Your task to perform on an android device: empty trash in google photos Image 0: 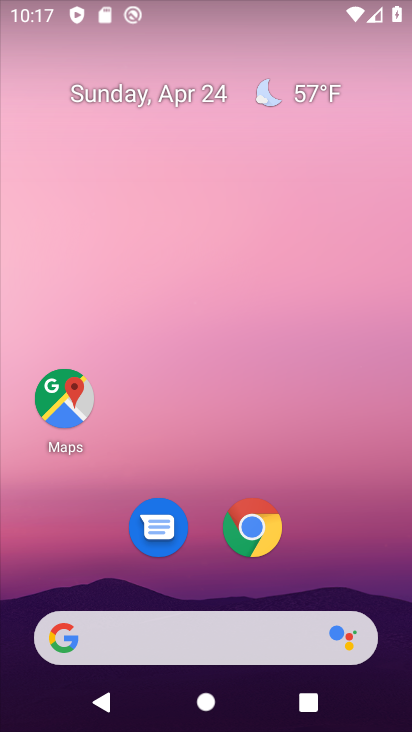
Step 0: click (199, 33)
Your task to perform on an android device: empty trash in google photos Image 1: 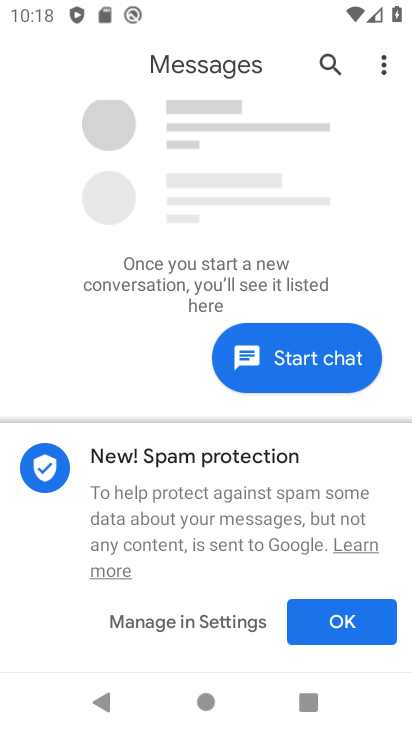
Step 1: press home button
Your task to perform on an android device: empty trash in google photos Image 2: 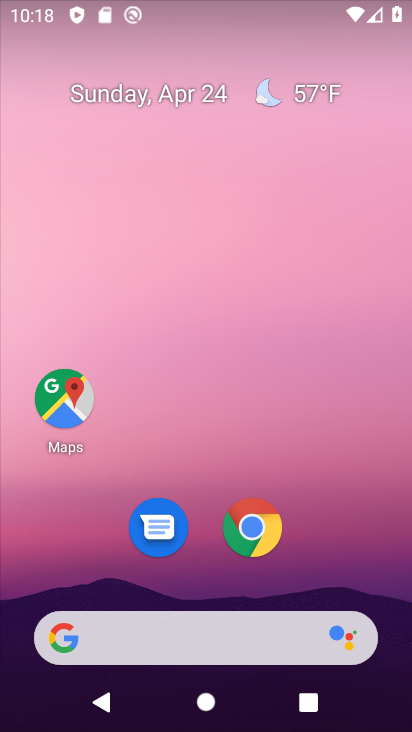
Step 2: drag from (269, 728) to (191, 84)
Your task to perform on an android device: empty trash in google photos Image 3: 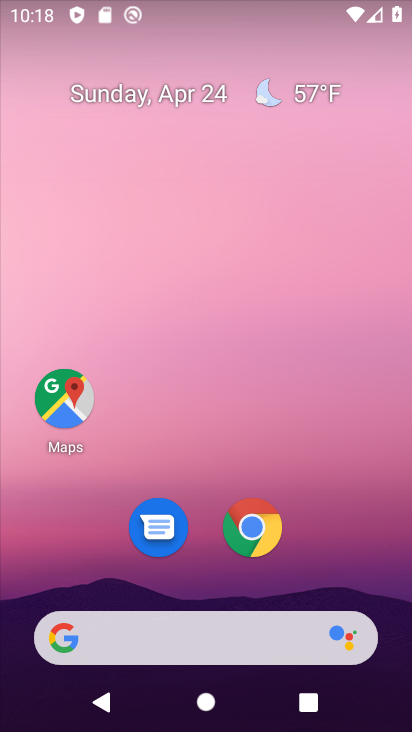
Step 3: drag from (267, 649) to (178, 21)
Your task to perform on an android device: empty trash in google photos Image 4: 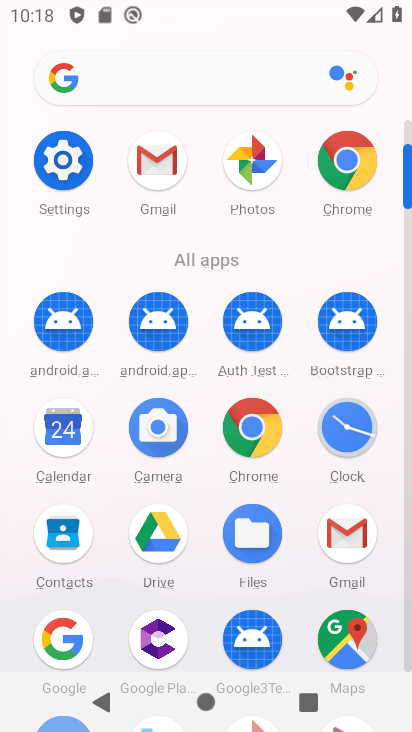
Step 4: drag from (313, 488) to (295, 0)
Your task to perform on an android device: empty trash in google photos Image 5: 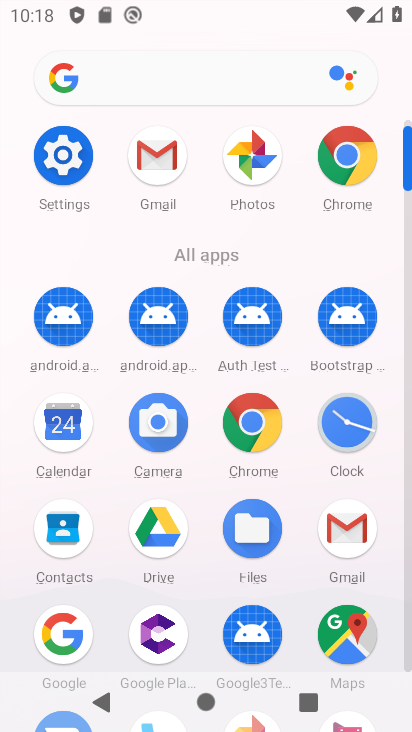
Step 5: drag from (293, 553) to (276, 109)
Your task to perform on an android device: empty trash in google photos Image 6: 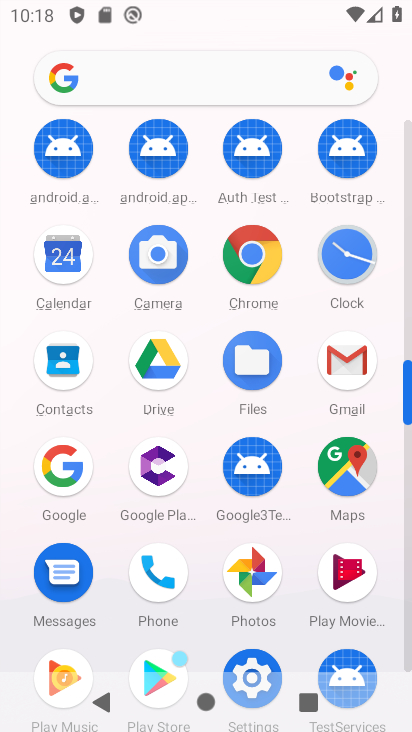
Step 6: drag from (306, 446) to (280, 185)
Your task to perform on an android device: empty trash in google photos Image 7: 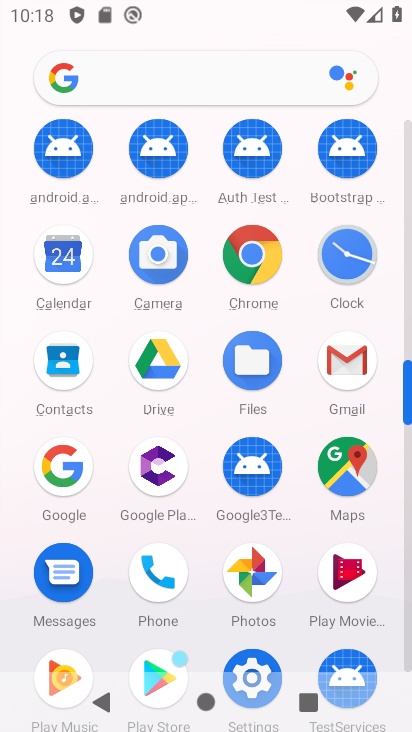
Step 7: click (263, 575)
Your task to perform on an android device: empty trash in google photos Image 8: 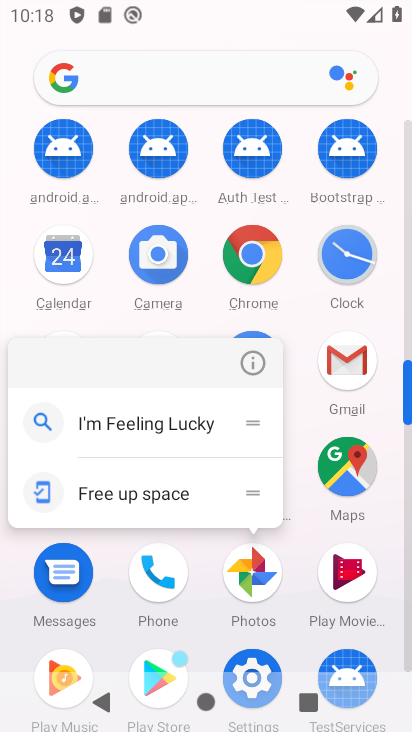
Step 8: click (260, 576)
Your task to perform on an android device: empty trash in google photos Image 9: 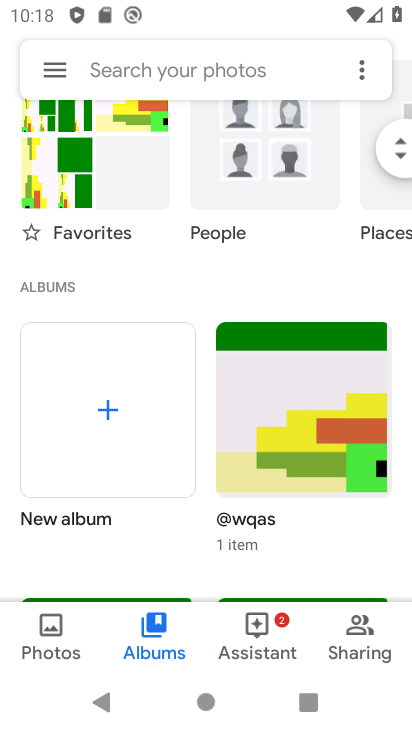
Step 9: drag from (53, 70) to (73, 247)
Your task to perform on an android device: empty trash in google photos Image 10: 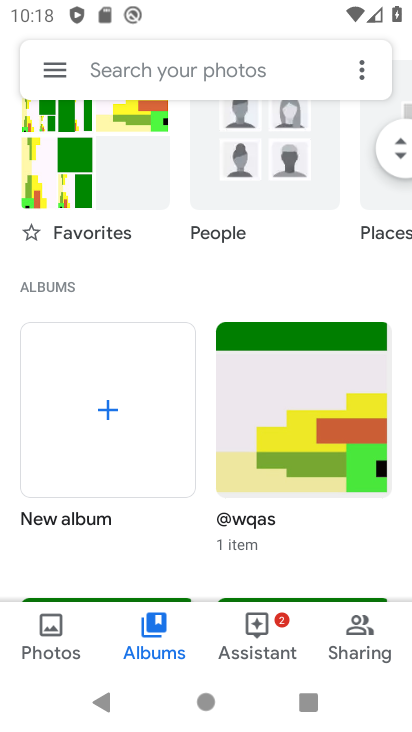
Step 10: drag from (56, 73) to (72, 168)
Your task to perform on an android device: empty trash in google photos Image 11: 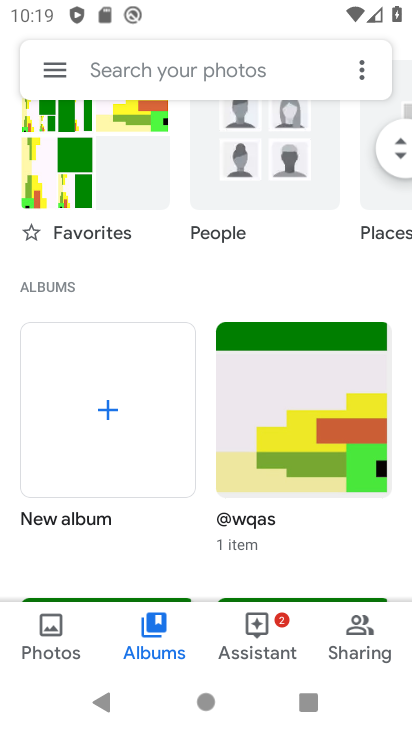
Step 11: click (46, 70)
Your task to perform on an android device: empty trash in google photos Image 12: 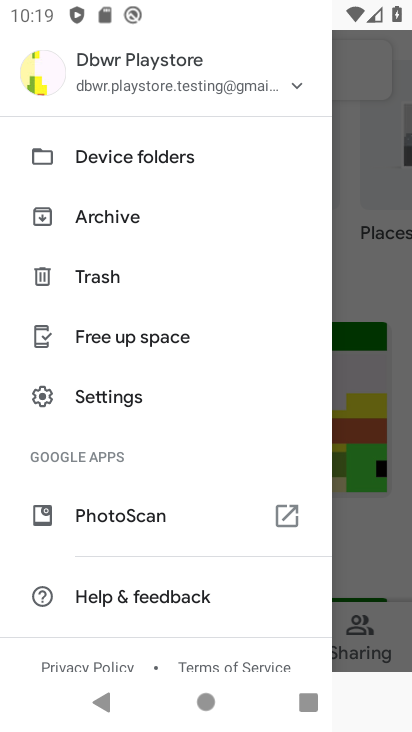
Step 12: click (102, 280)
Your task to perform on an android device: empty trash in google photos Image 13: 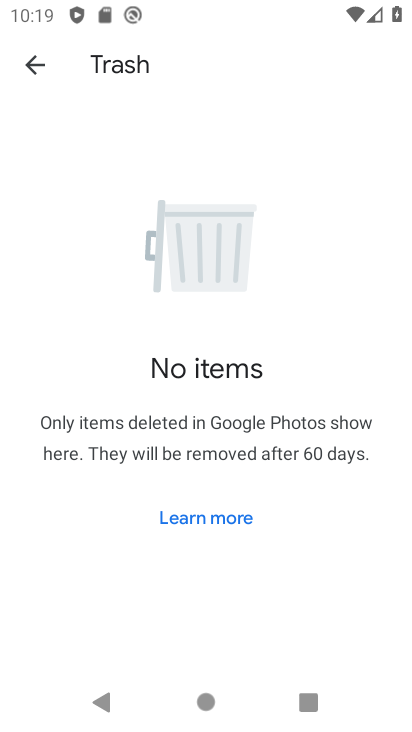
Step 13: task complete